Your task to perform on an android device: turn on sleep mode Image 0: 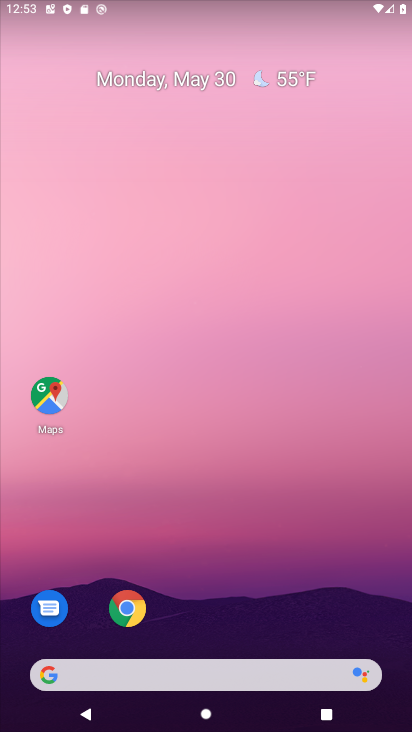
Step 0: drag from (142, 650) to (256, 148)
Your task to perform on an android device: turn on sleep mode Image 1: 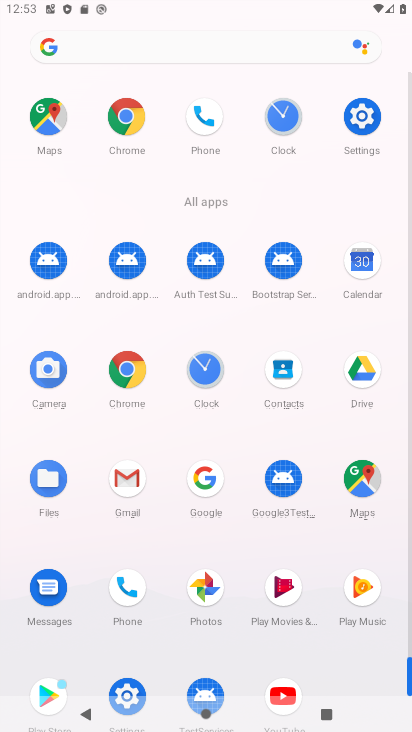
Step 1: drag from (238, 629) to (287, 389)
Your task to perform on an android device: turn on sleep mode Image 2: 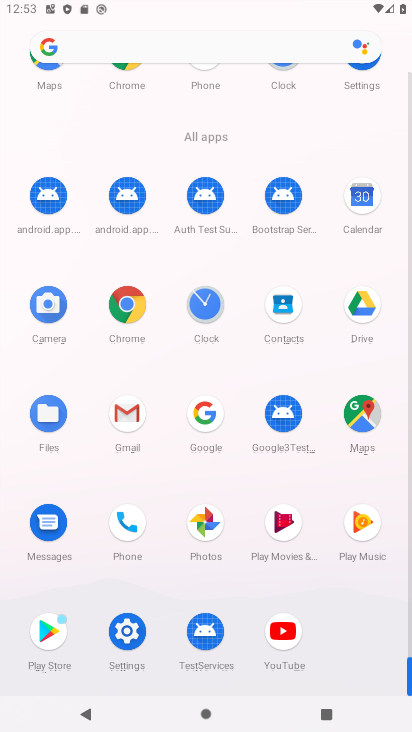
Step 2: click (142, 667)
Your task to perform on an android device: turn on sleep mode Image 3: 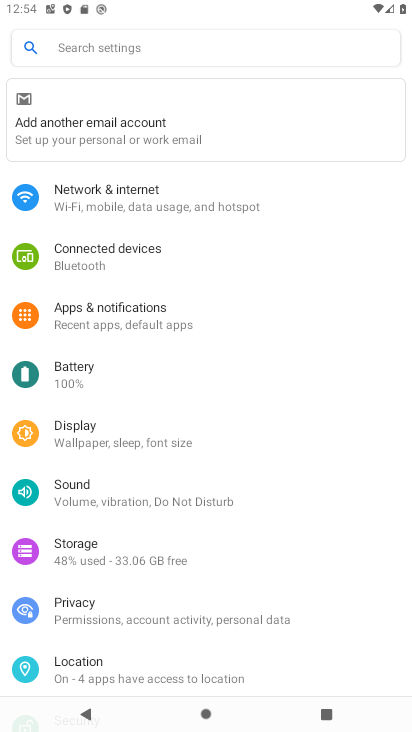
Step 3: click (128, 449)
Your task to perform on an android device: turn on sleep mode Image 4: 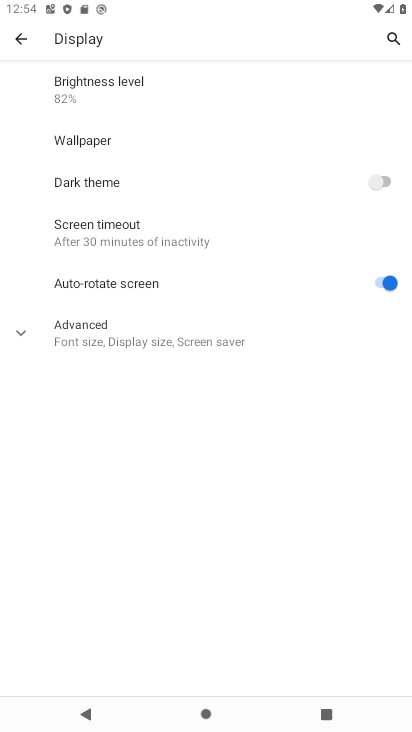
Step 4: click (148, 348)
Your task to perform on an android device: turn on sleep mode Image 5: 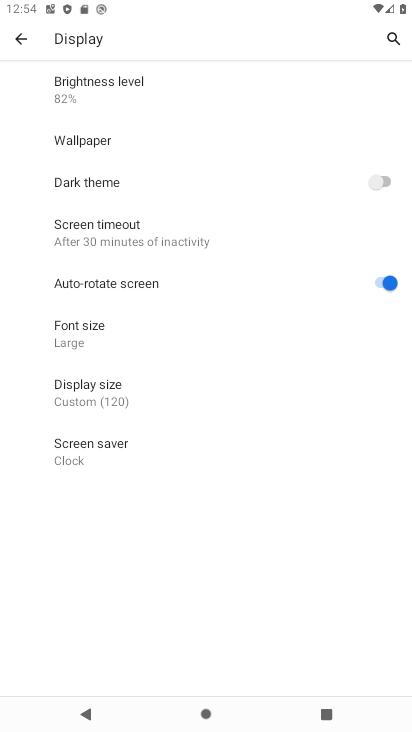
Step 5: task complete